Your task to perform on an android device: Open Reddit.com Image 0: 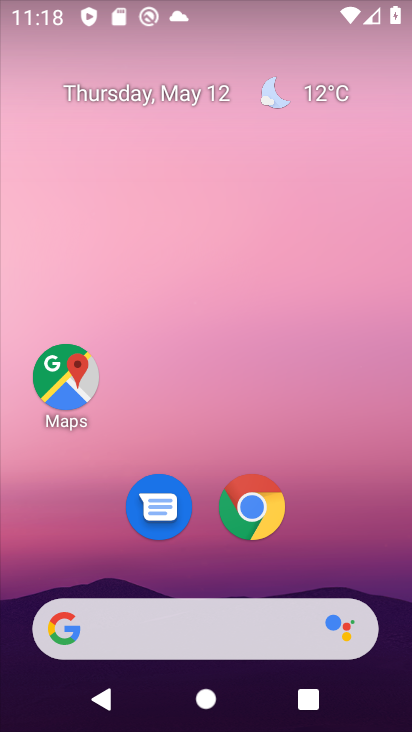
Step 0: click (261, 516)
Your task to perform on an android device: Open Reddit.com Image 1: 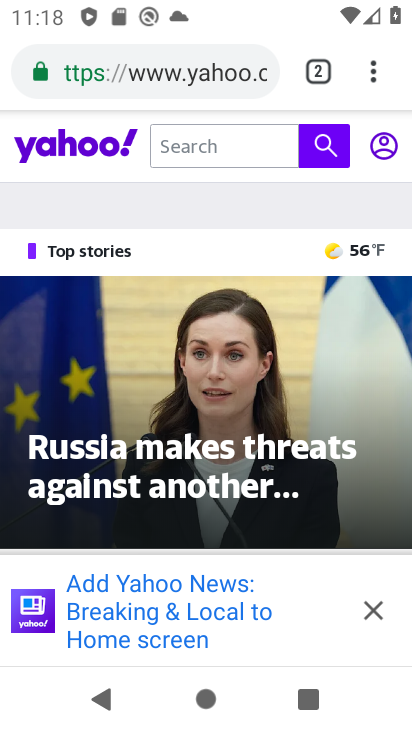
Step 1: click (159, 80)
Your task to perform on an android device: Open Reddit.com Image 2: 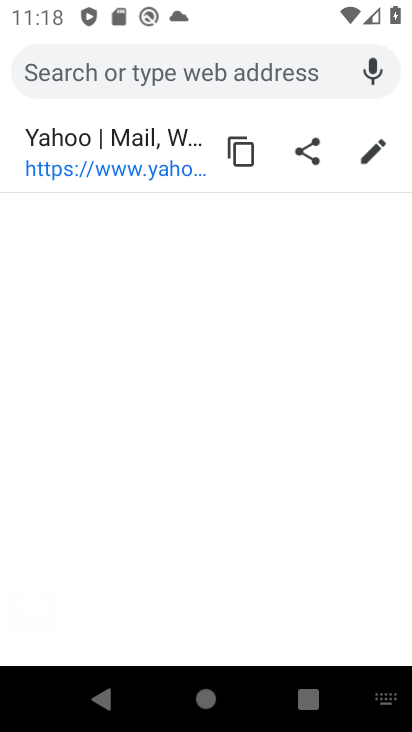
Step 2: type "Reddit.com"
Your task to perform on an android device: Open Reddit.com Image 3: 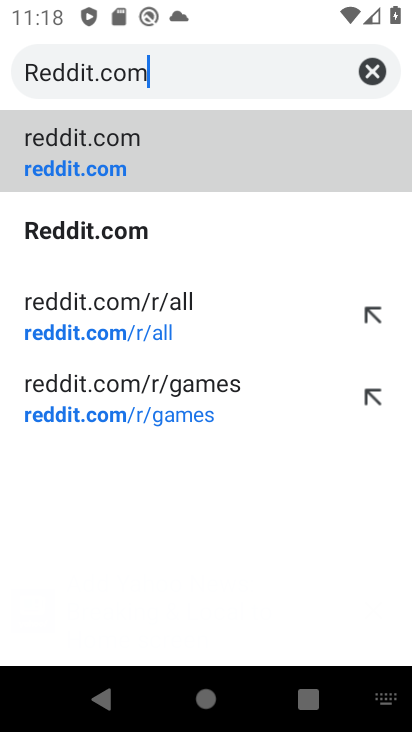
Step 3: click (120, 163)
Your task to perform on an android device: Open Reddit.com Image 4: 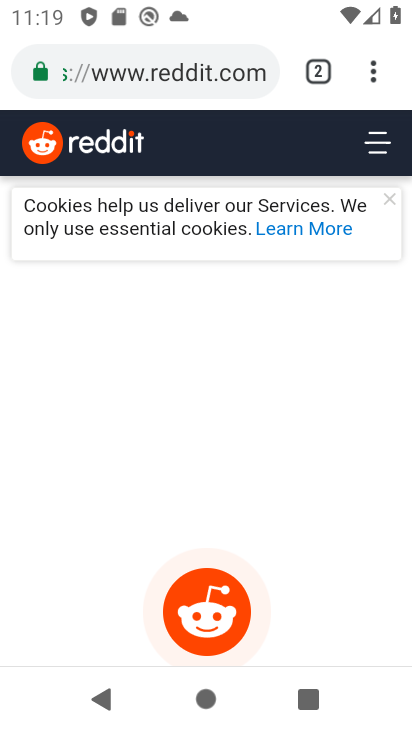
Step 4: task complete